Your task to perform on an android device: What's the weather going to be tomorrow? Image 0: 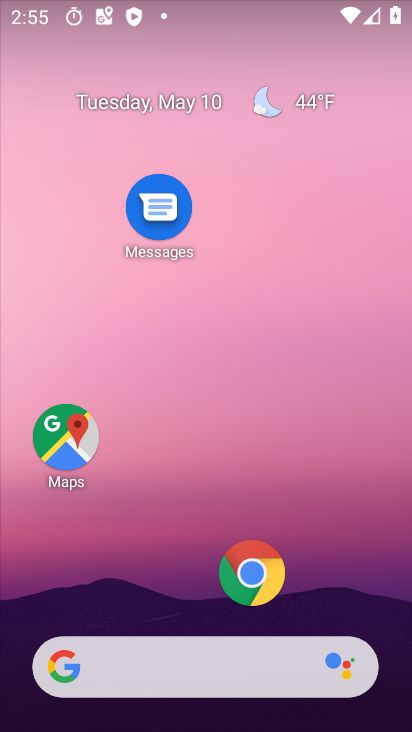
Step 0: drag from (178, 608) to (178, 241)
Your task to perform on an android device: What's the weather going to be tomorrow? Image 1: 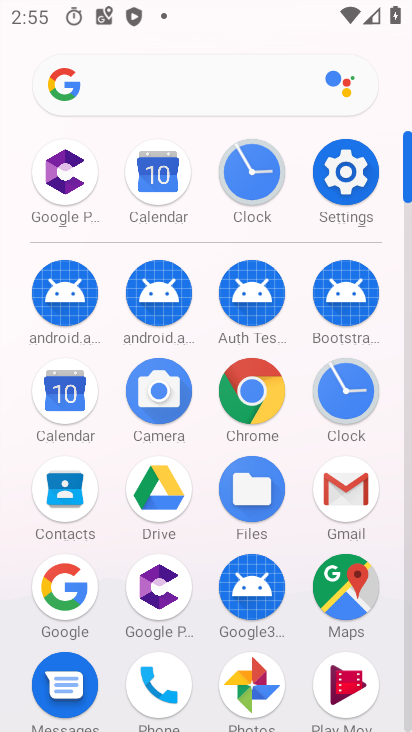
Step 1: click (78, 586)
Your task to perform on an android device: What's the weather going to be tomorrow? Image 2: 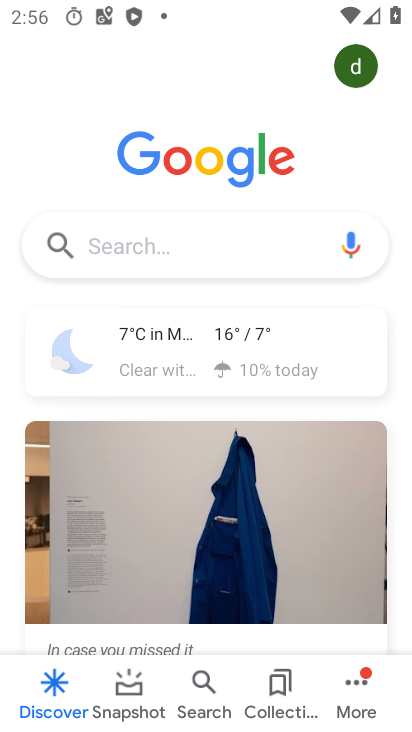
Step 2: click (169, 341)
Your task to perform on an android device: What's the weather going to be tomorrow? Image 3: 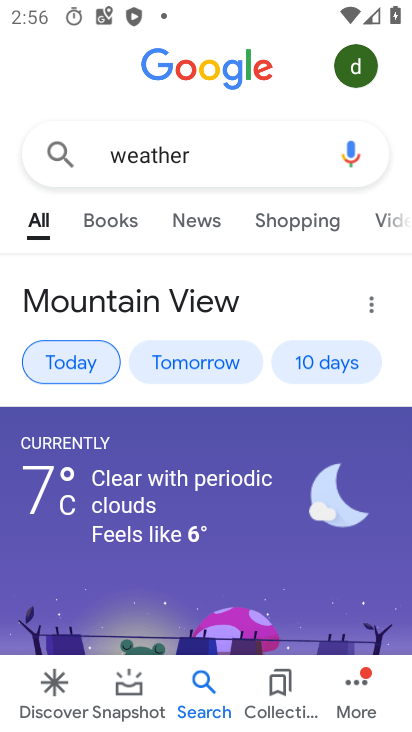
Step 3: click (193, 347)
Your task to perform on an android device: What's the weather going to be tomorrow? Image 4: 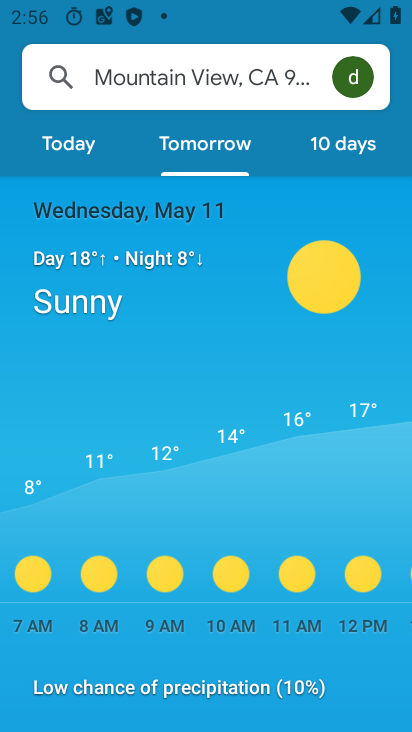
Step 4: task complete